Your task to perform on an android device: Open network settings Image 0: 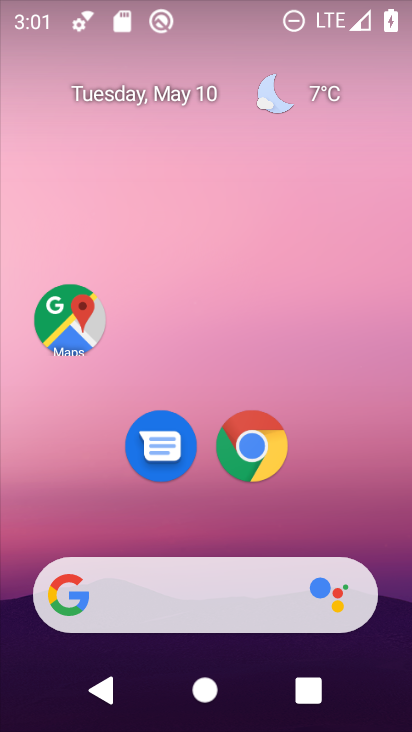
Step 0: drag from (245, 509) to (244, 46)
Your task to perform on an android device: Open network settings Image 1: 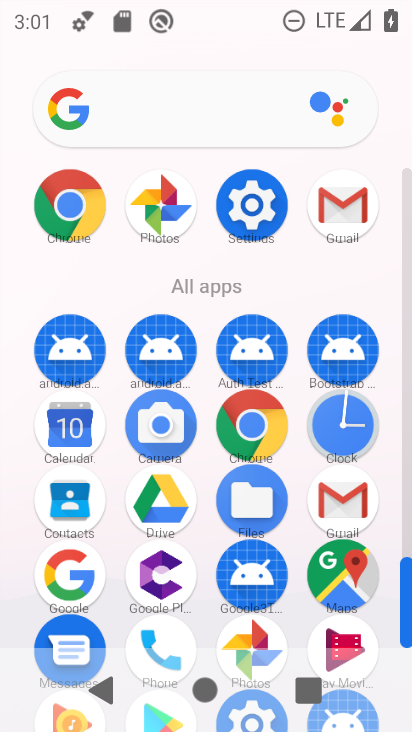
Step 1: click (253, 209)
Your task to perform on an android device: Open network settings Image 2: 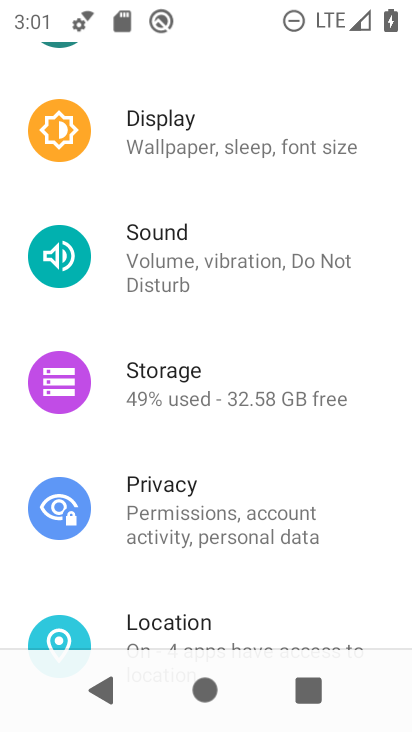
Step 2: drag from (248, 196) to (268, 619)
Your task to perform on an android device: Open network settings Image 3: 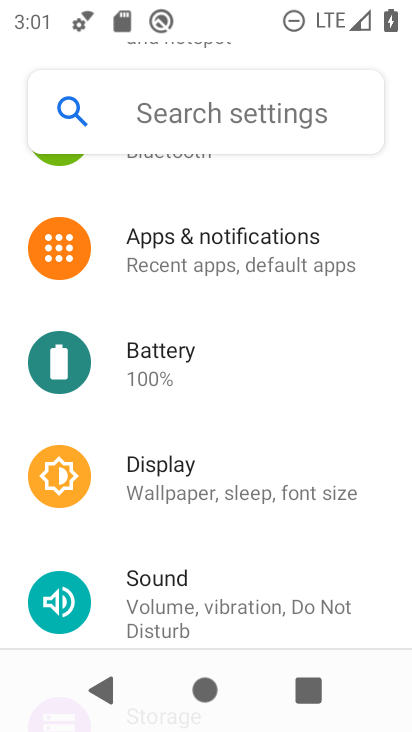
Step 3: drag from (230, 243) to (213, 555)
Your task to perform on an android device: Open network settings Image 4: 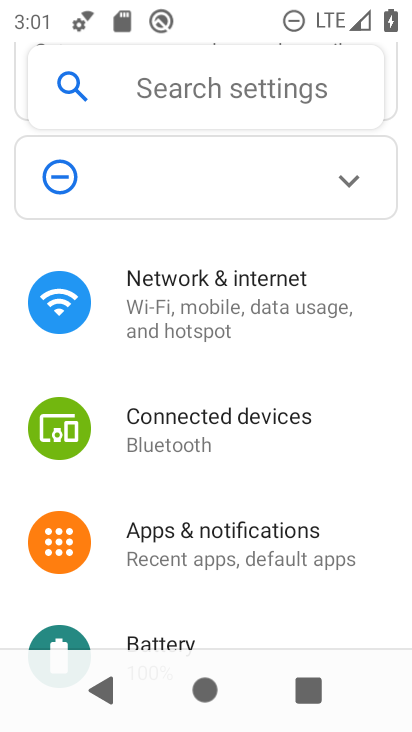
Step 4: click (191, 330)
Your task to perform on an android device: Open network settings Image 5: 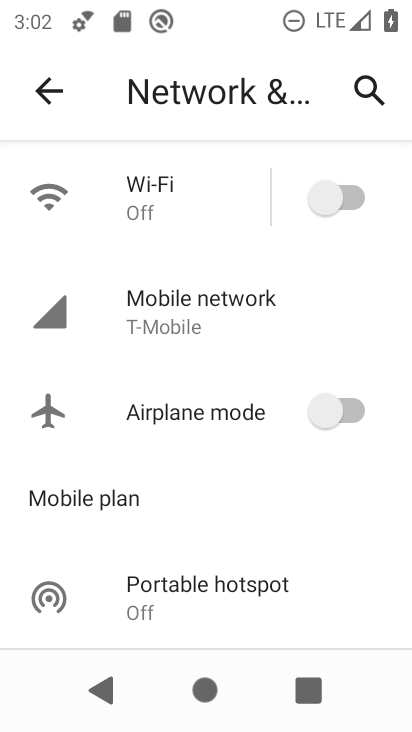
Step 5: task complete